Your task to perform on an android device: Open display settings Image 0: 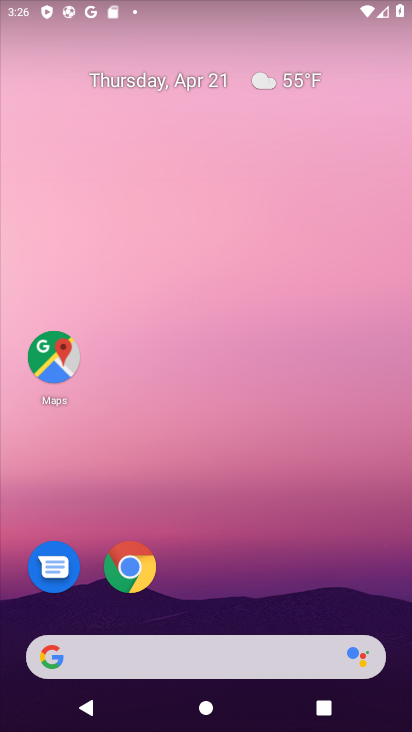
Step 0: drag from (221, 612) to (239, 40)
Your task to perform on an android device: Open display settings Image 1: 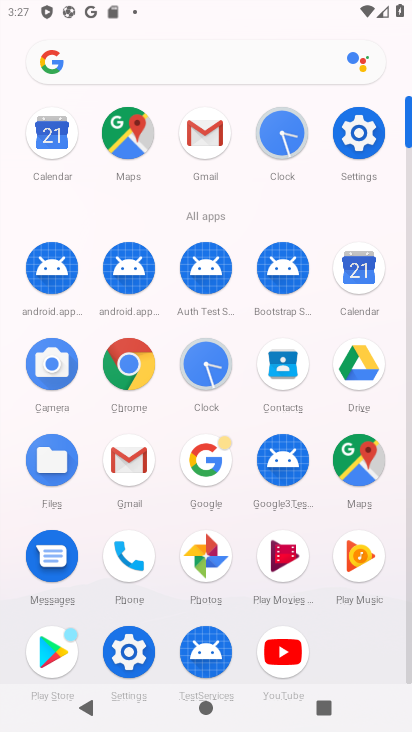
Step 1: click (125, 645)
Your task to perform on an android device: Open display settings Image 2: 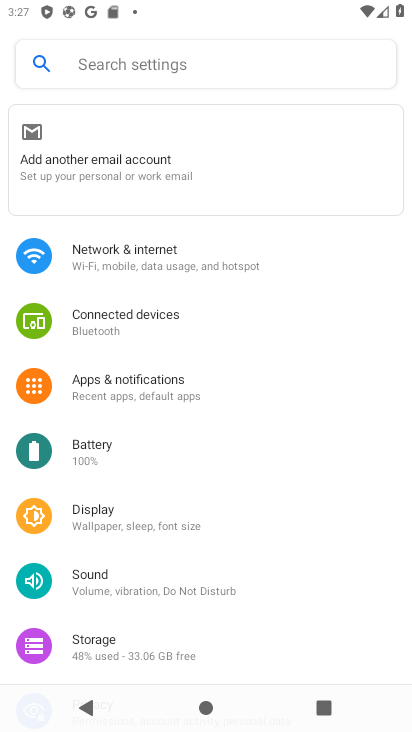
Step 2: click (122, 506)
Your task to perform on an android device: Open display settings Image 3: 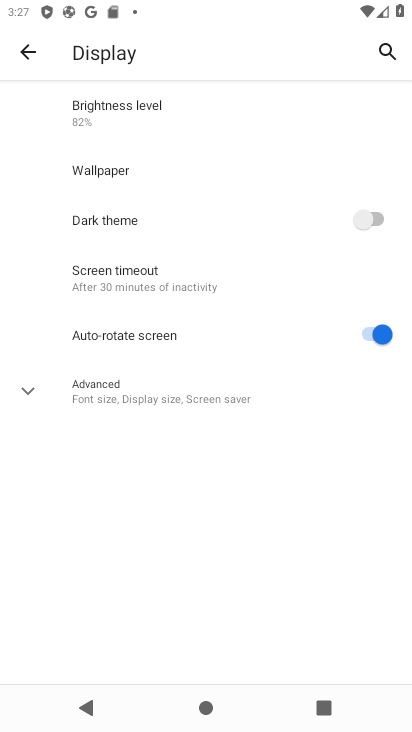
Step 3: click (27, 388)
Your task to perform on an android device: Open display settings Image 4: 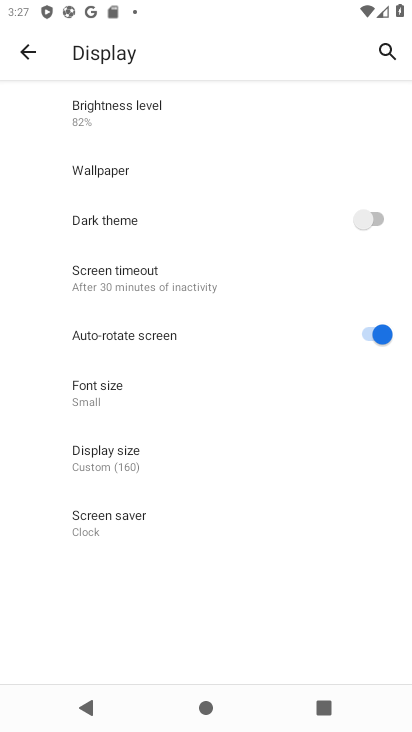
Step 4: task complete